Your task to perform on an android device: refresh tabs in the chrome app Image 0: 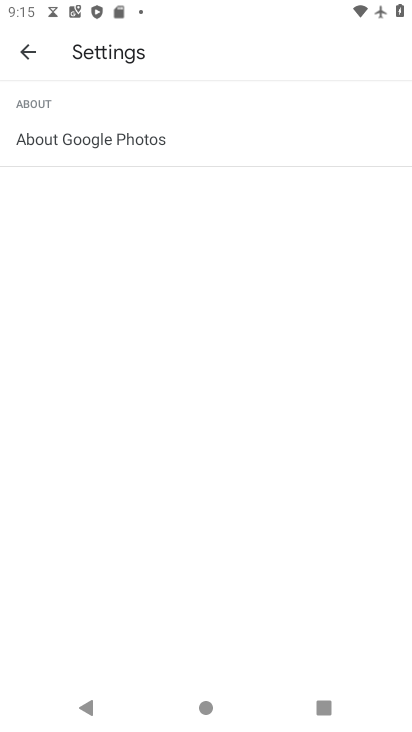
Step 0: press home button
Your task to perform on an android device: refresh tabs in the chrome app Image 1: 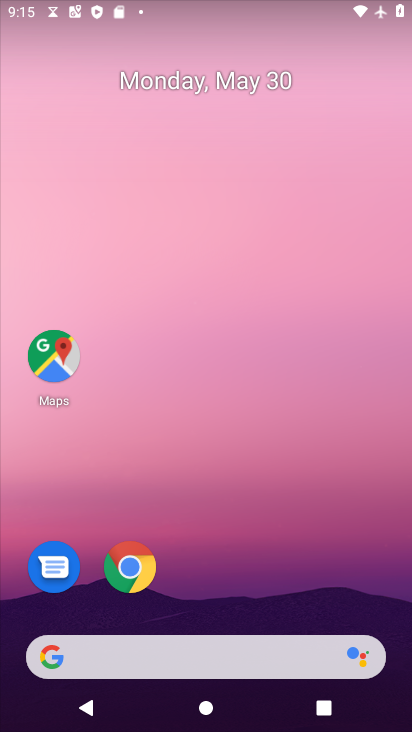
Step 1: drag from (343, 592) to (294, 79)
Your task to perform on an android device: refresh tabs in the chrome app Image 2: 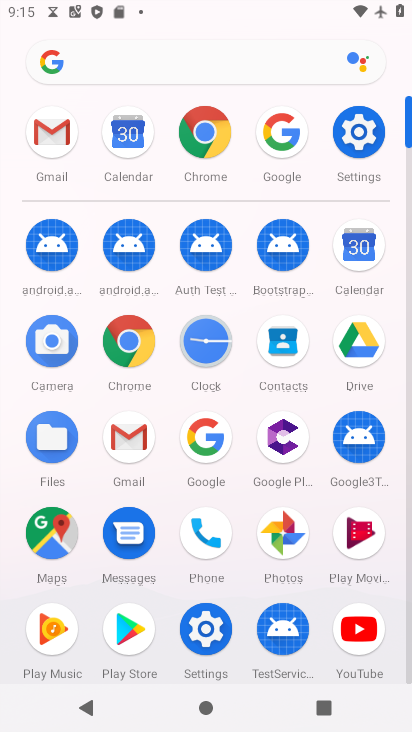
Step 2: click (206, 133)
Your task to perform on an android device: refresh tabs in the chrome app Image 3: 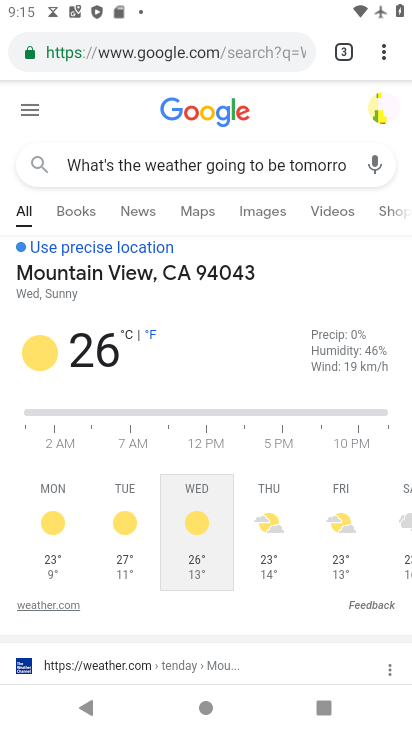
Step 3: click (374, 66)
Your task to perform on an android device: refresh tabs in the chrome app Image 4: 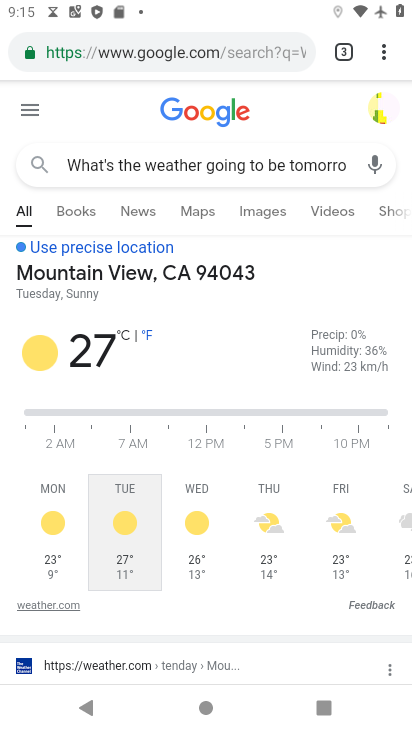
Step 4: task complete